Your task to perform on an android device: toggle translation in the chrome app Image 0: 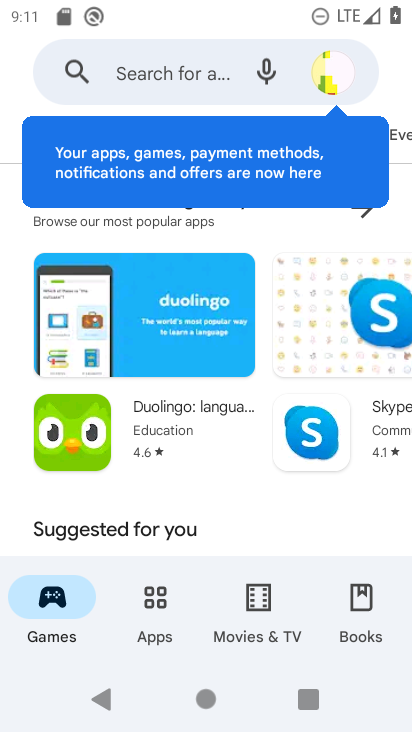
Step 0: press home button
Your task to perform on an android device: toggle translation in the chrome app Image 1: 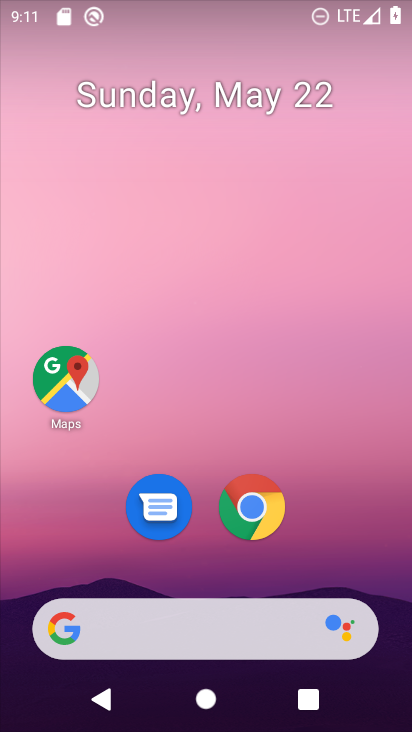
Step 1: click (262, 503)
Your task to perform on an android device: toggle translation in the chrome app Image 2: 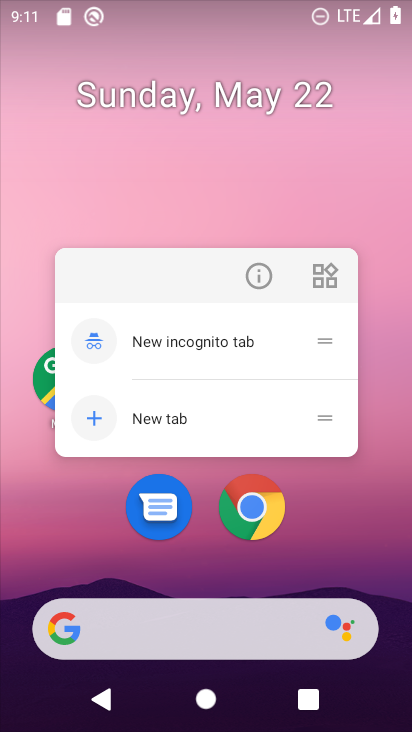
Step 2: click (239, 505)
Your task to perform on an android device: toggle translation in the chrome app Image 3: 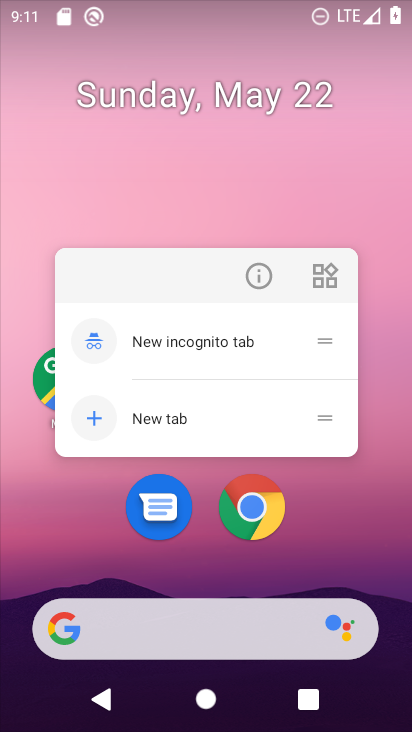
Step 3: click (239, 505)
Your task to perform on an android device: toggle translation in the chrome app Image 4: 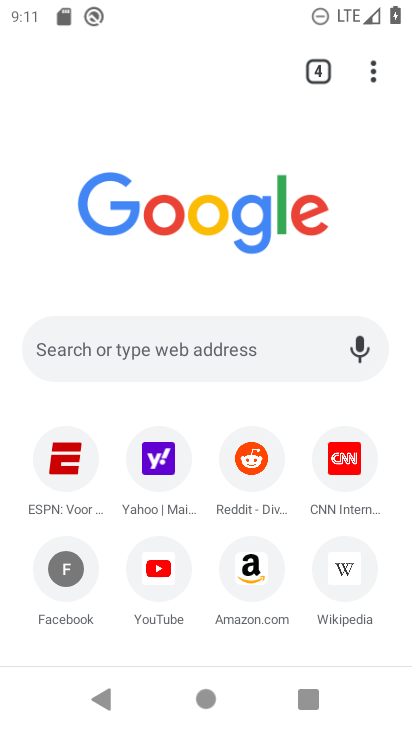
Step 4: click (371, 63)
Your task to perform on an android device: toggle translation in the chrome app Image 5: 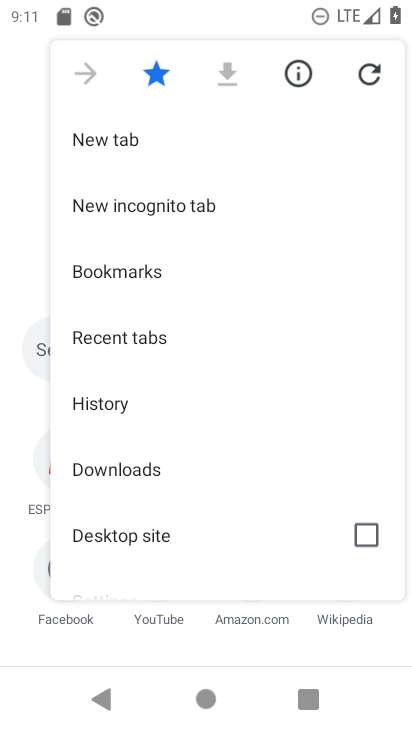
Step 5: drag from (196, 494) to (193, 47)
Your task to perform on an android device: toggle translation in the chrome app Image 6: 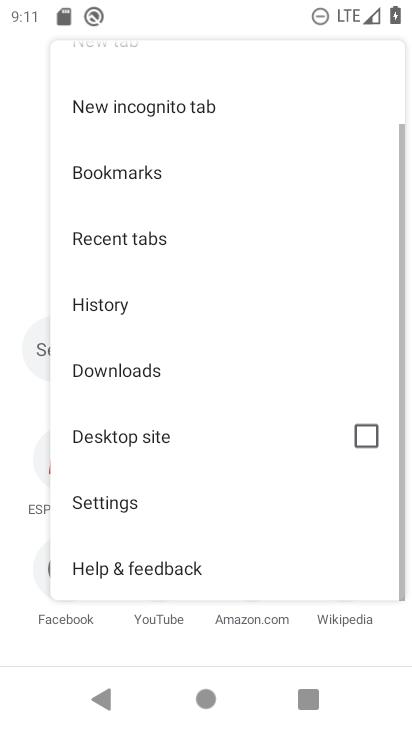
Step 6: click (125, 506)
Your task to perform on an android device: toggle translation in the chrome app Image 7: 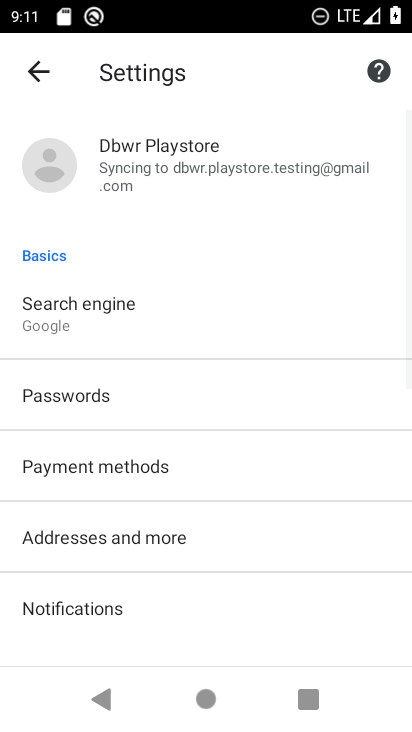
Step 7: drag from (167, 610) to (196, 235)
Your task to perform on an android device: toggle translation in the chrome app Image 8: 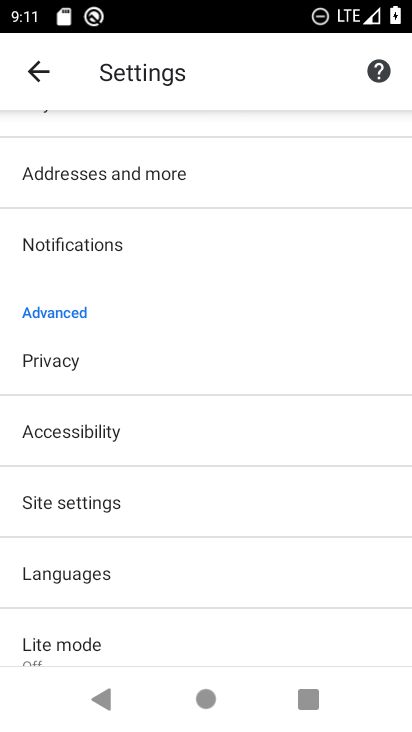
Step 8: click (142, 587)
Your task to perform on an android device: toggle translation in the chrome app Image 9: 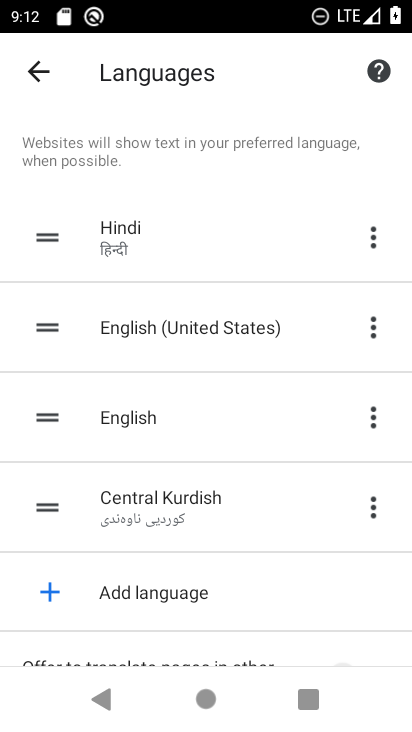
Step 9: drag from (290, 587) to (244, 112)
Your task to perform on an android device: toggle translation in the chrome app Image 10: 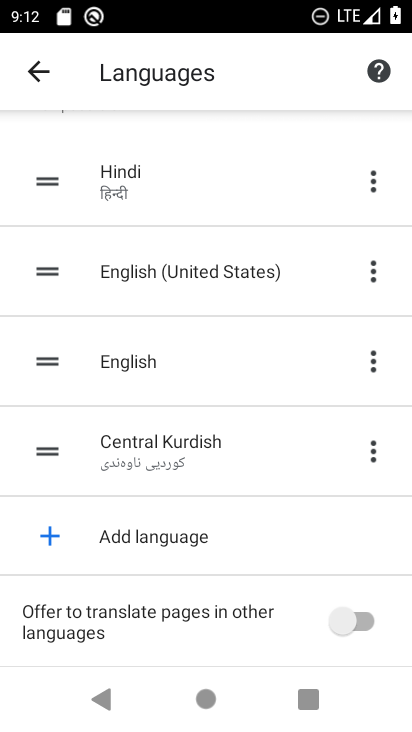
Step 10: click (346, 616)
Your task to perform on an android device: toggle translation in the chrome app Image 11: 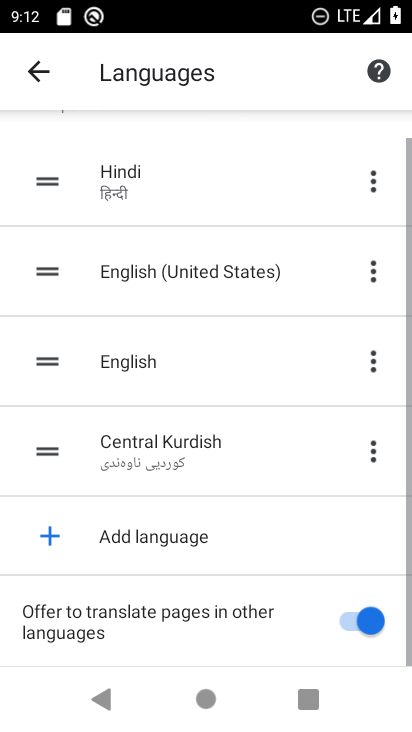
Step 11: task complete